Your task to perform on an android device: Go to calendar. Show me events next week Image 0: 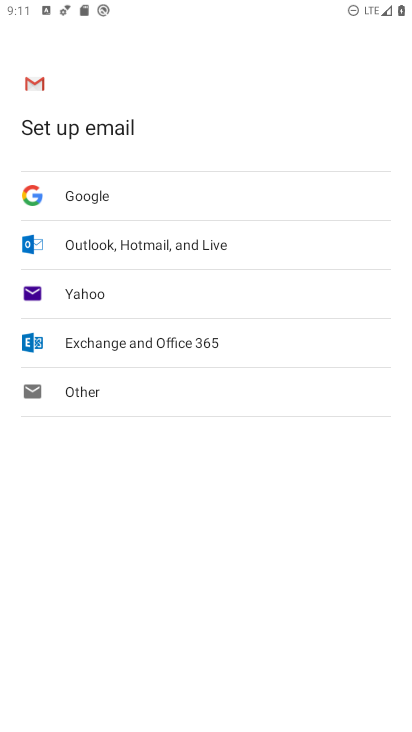
Step 0: press home button
Your task to perform on an android device: Go to calendar. Show me events next week Image 1: 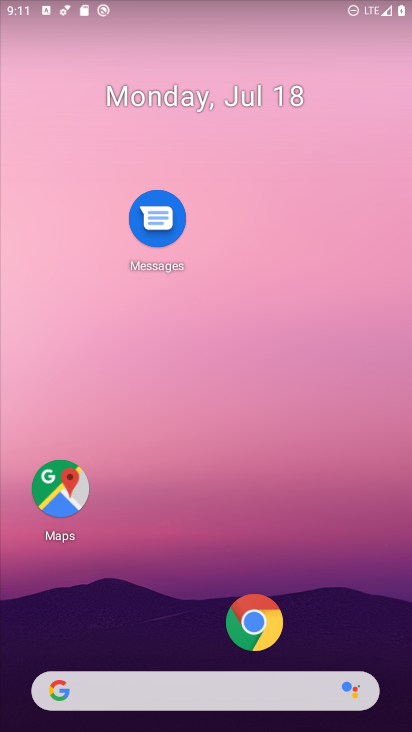
Step 1: drag from (294, 684) to (304, 168)
Your task to perform on an android device: Go to calendar. Show me events next week Image 2: 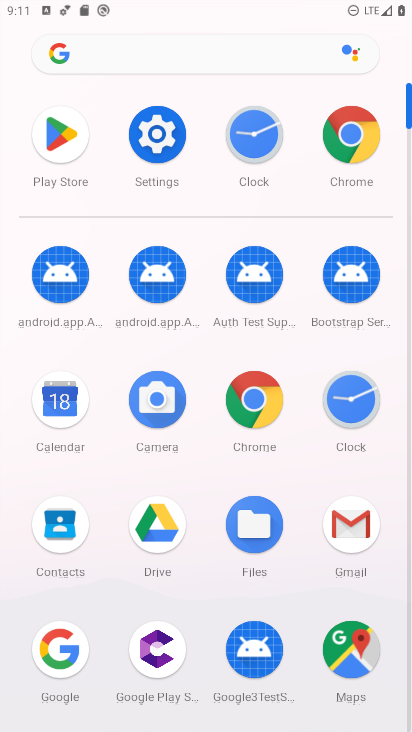
Step 2: click (68, 415)
Your task to perform on an android device: Go to calendar. Show me events next week Image 3: 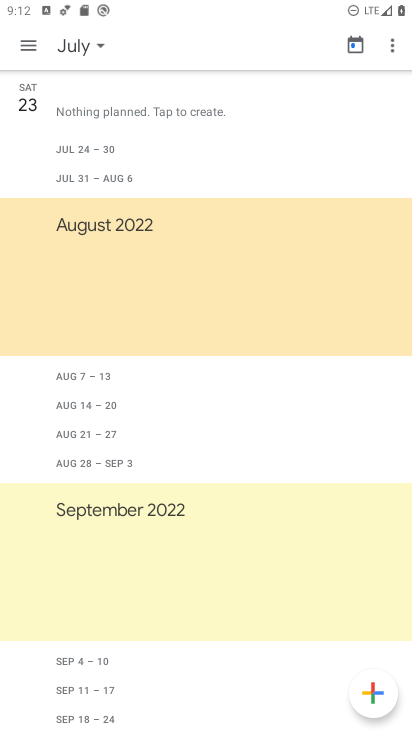
Step 3: click (86, 42)
Your task to perform on an android device: Go to calendar. Show me events next week Image 4: 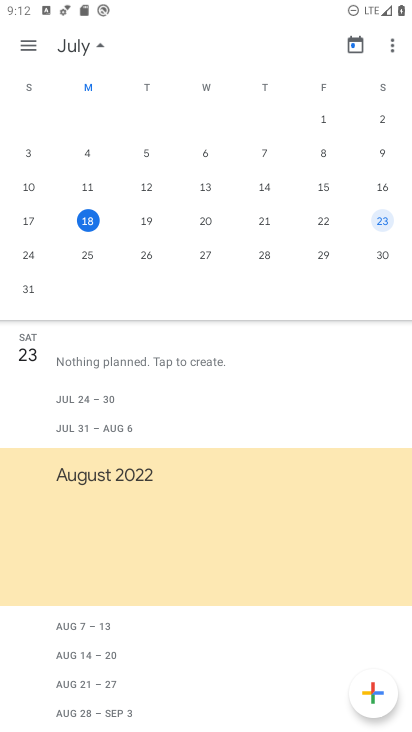
Step 4: click (34, 261)
Your task to perform on an android device: Go to calendar. Show me events next week Image 5: 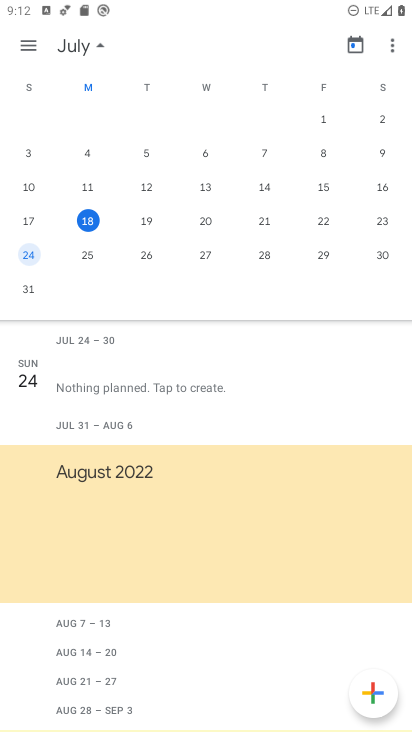
Step 5: task complete